Your task to perform on an android device: Open sound settings Image 0: 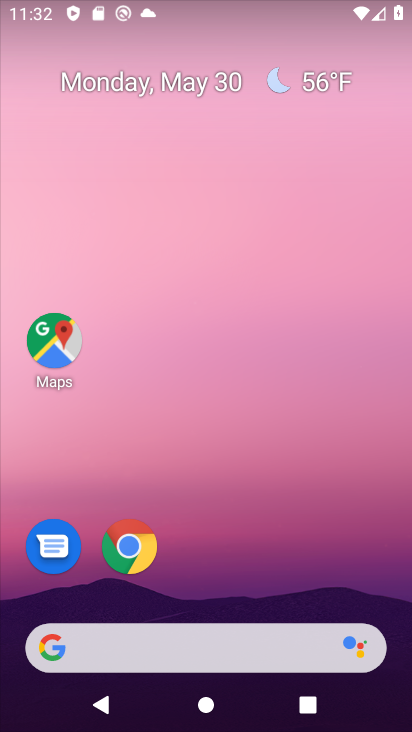
Step 0: drag from (247, 581) to (198, 139)
Your task to perform on an android device: Open sound settings Image 1: 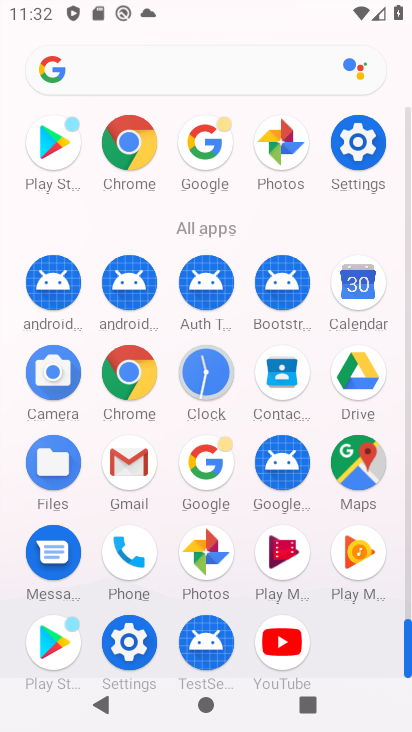
Step 1: click (359, 140)
Your task to perform on an android device: Open sound settings Image 2: 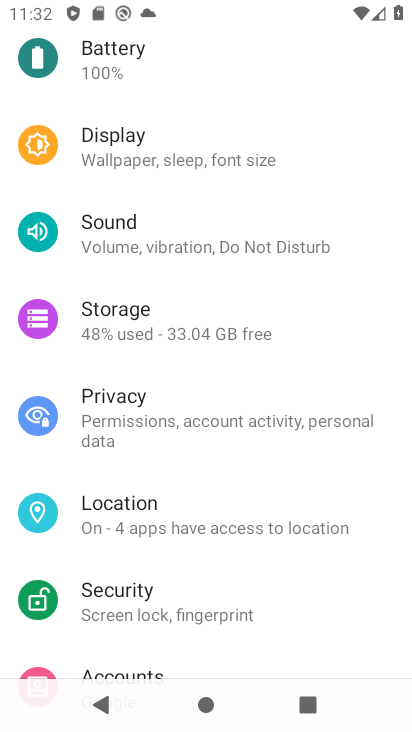
Step 2: click (199, 239)
Your task to perform on an android device: Open sound settings Image 3: 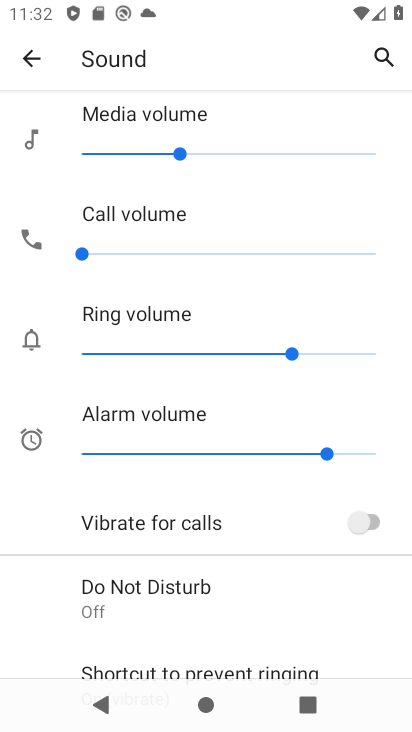
Step 3: task complete